Your task to perform on an android device: Turn off the flashlight Image 0: 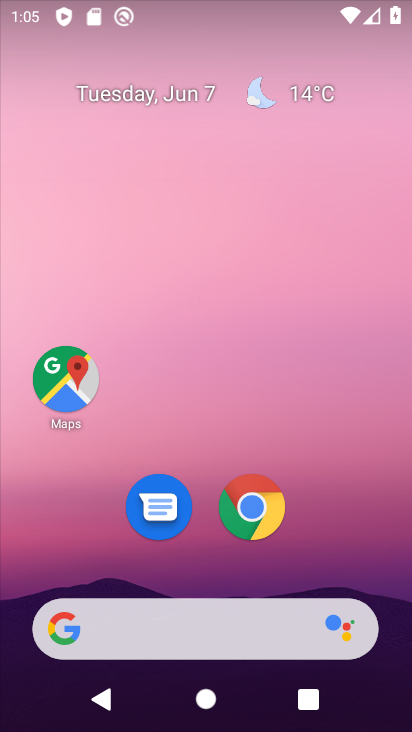
Step 0: drag from (235, 8) to (238, 359)
Your task to perform on an android device: Turn off the flashlight Image 1: 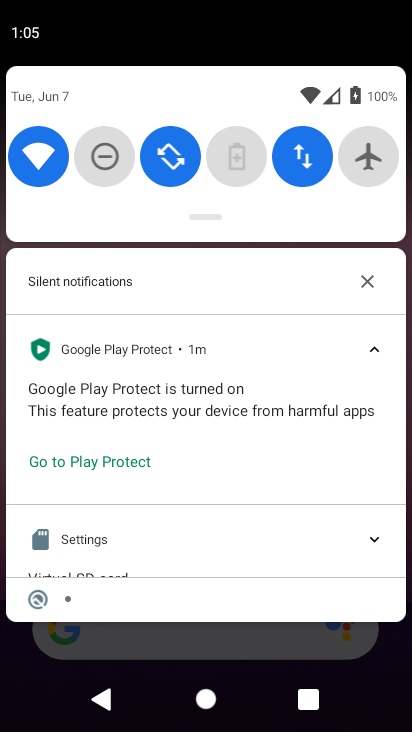
Step 1: drag from (205, 219) to (208, 423)
Your task to perform on an android device: Turn off the flashlight Image 2: 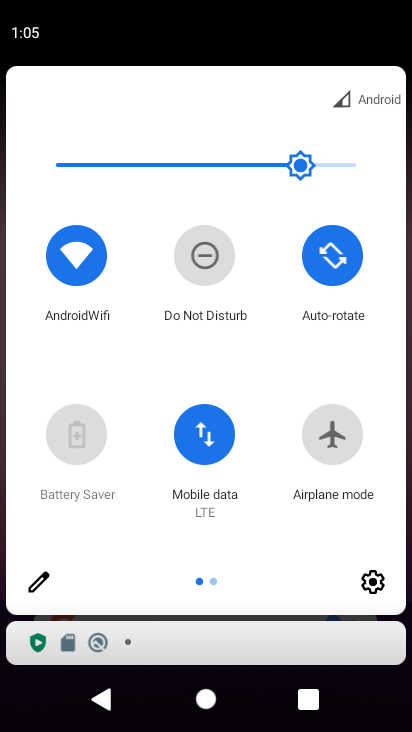
Step 2: click (42, 579)
Your task to perform on an android device: Turn off the flashlight Image 3: 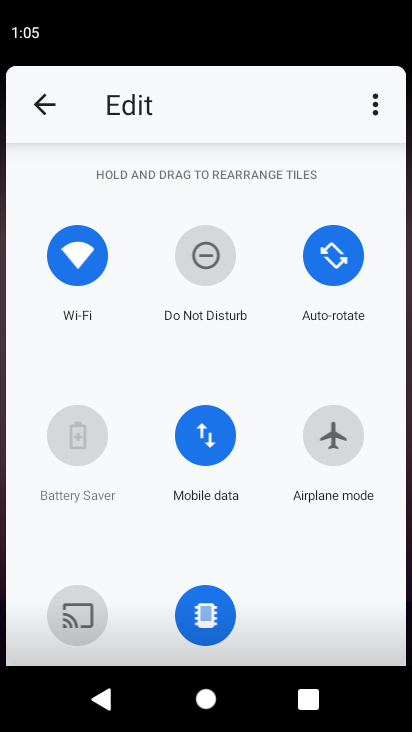
Step 3: task complete